Your task to perform on an android device: Go to Amazon Image 0: 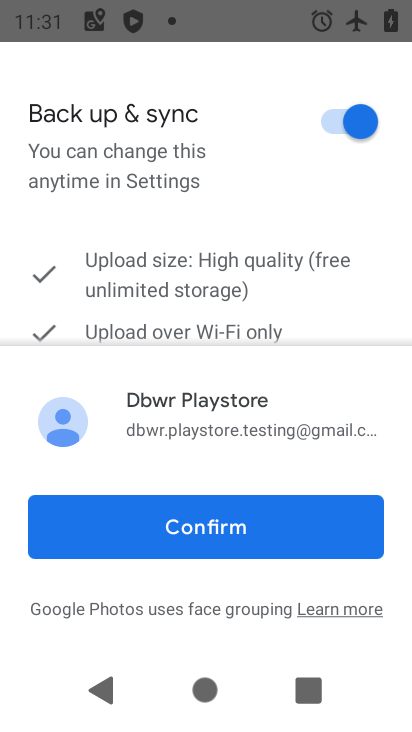
Step 0: press home button
Your task to perform on an android device: Go to Amazon Image 1: 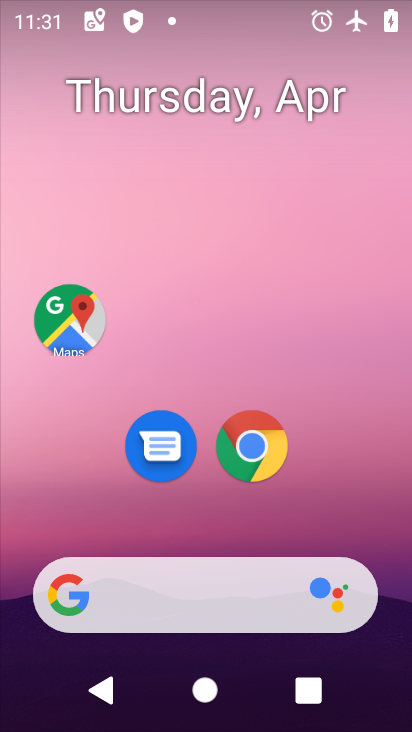
Step 1: click (279, 458)
Your task to perform on an android device: Go to Amazon Image 2: 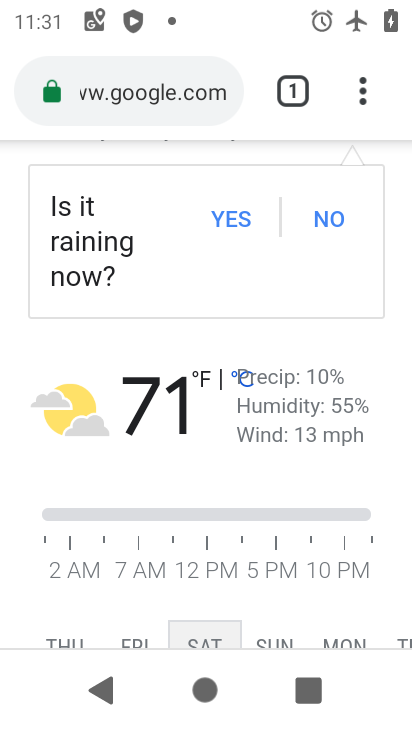
Step 2: click (292, 80)
Your task to perform on an android device: Go to Amazon Image 3: 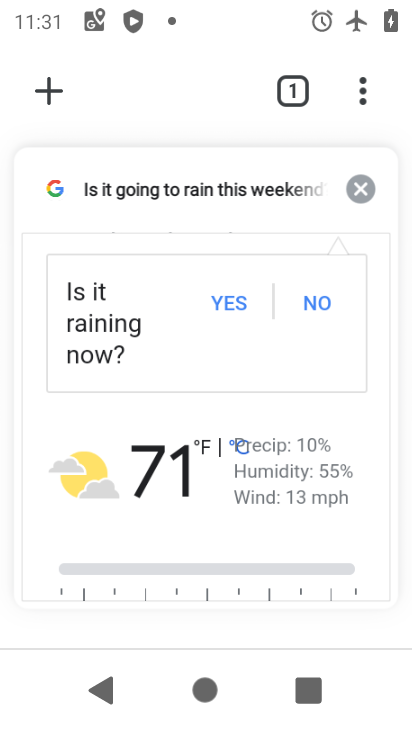
Step 3: click (46, 85)
Your task to perform on an android device: Go to Amazon Image 4: 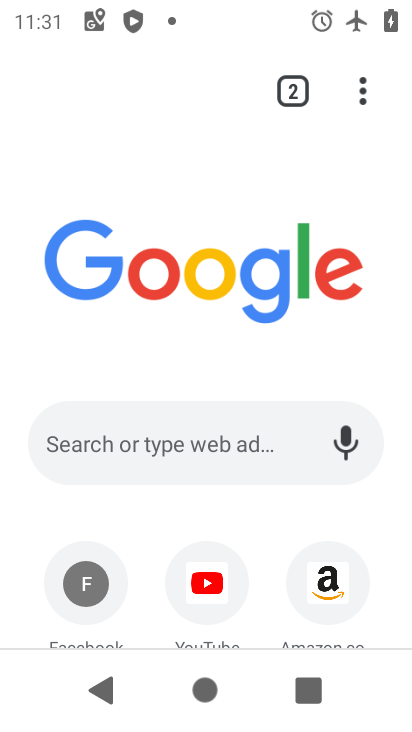
Step 4: click (338, 576)
Your task to perform on an android device: Go to Amazon Image 5: 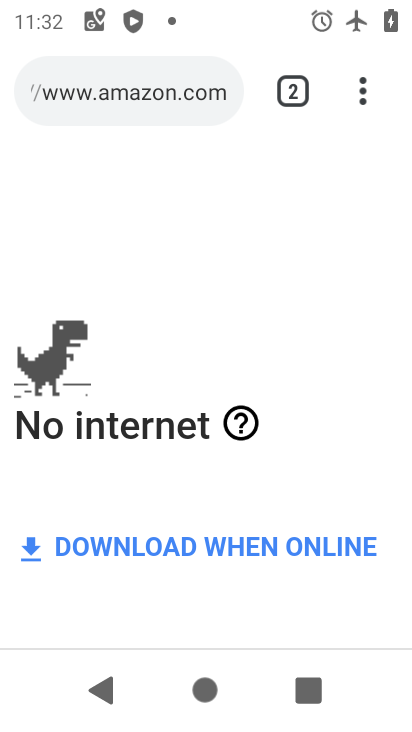
Step 5: task complete